Your task to perform on an android device: toggle javascript in the chrome app Image 0: 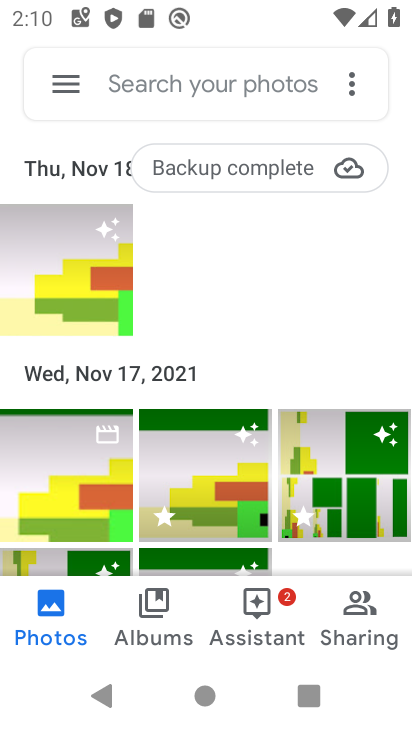
Step 0: press home button
Your task to perform on an android device: toggle javascript in the chrome app Image 1: 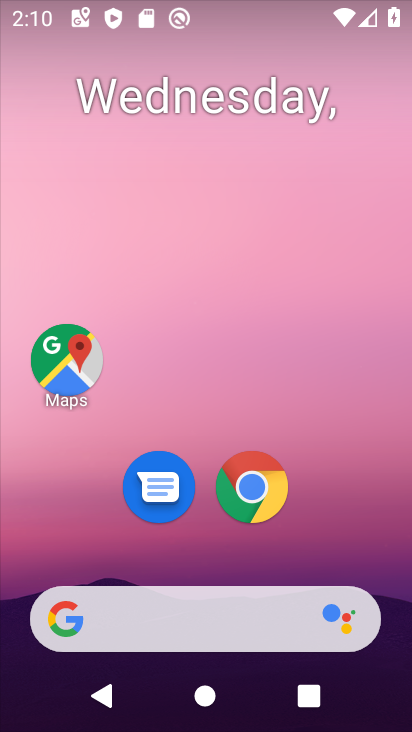
Step 1: click (251, 482)
Your task to perform on an android device: toggle javascript in the chrome app Image 2: 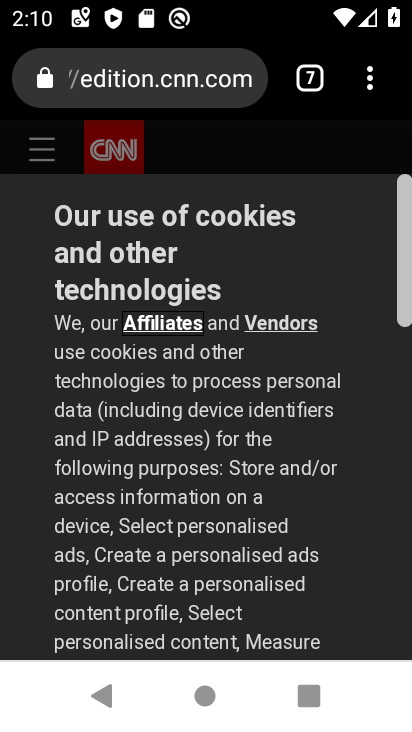
Step 2: click (367, 79)
Your task to perform on an android device: toggle javascript in the chrome app Image 3: 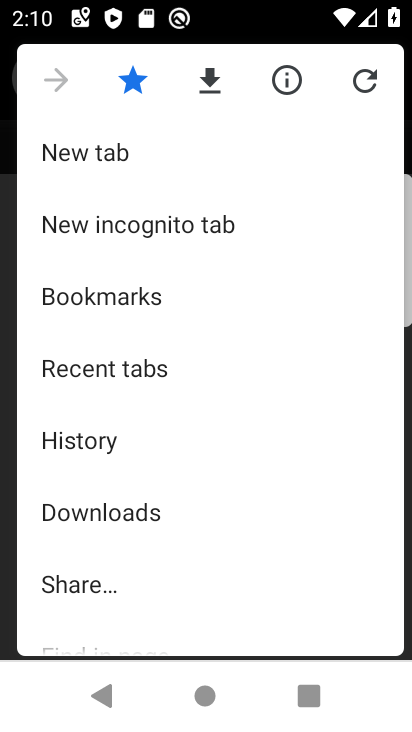
Step 3: drag from (257, 390) to (200, 72)
Your task to perform on an android device: toggle javascript in the chrome app Image 4: 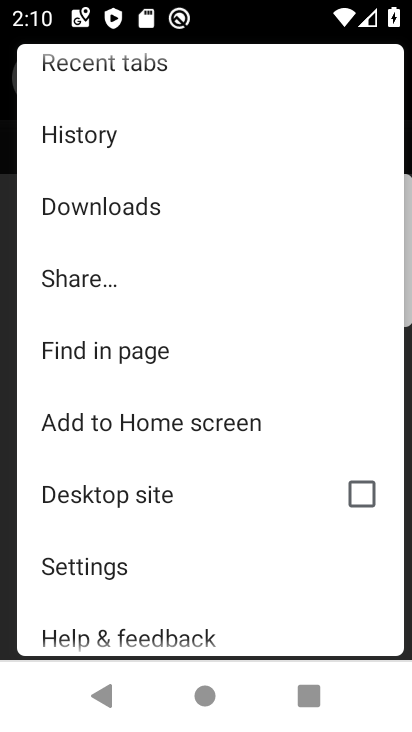
Step 4: click (79, 566)
Your task to perform on an android device: toggle javascript in the chrome app Image 5: 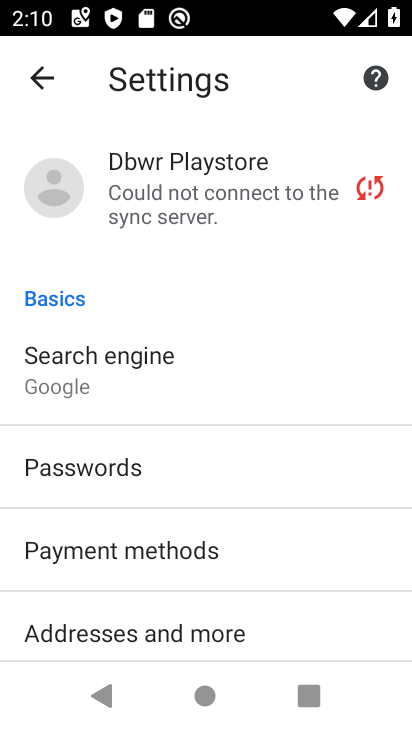
Step 5: drag from (262, 529) to (189, 68)
Your task to perform on an android device: toggle javascript in the chrome app Image 6: 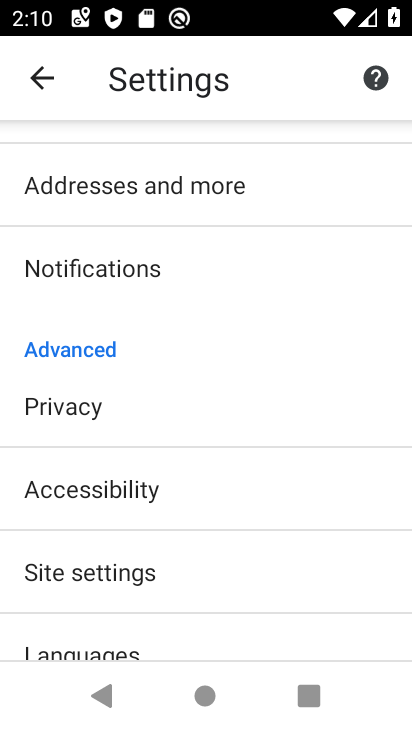
Step 6: drag from (243, 526) to (207, 294)
Your task to perform on an android device: toggle javascript in the chrome app Image 7: 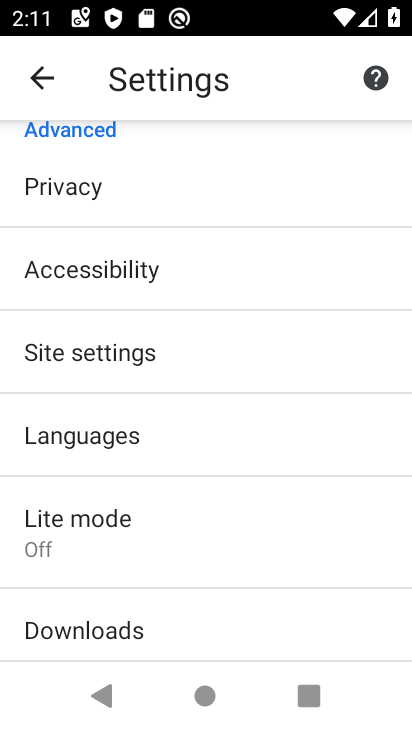
Step 7: click (107, 349)
Your task to perform on an android device: toggle javascript in the chrome app Image 8: 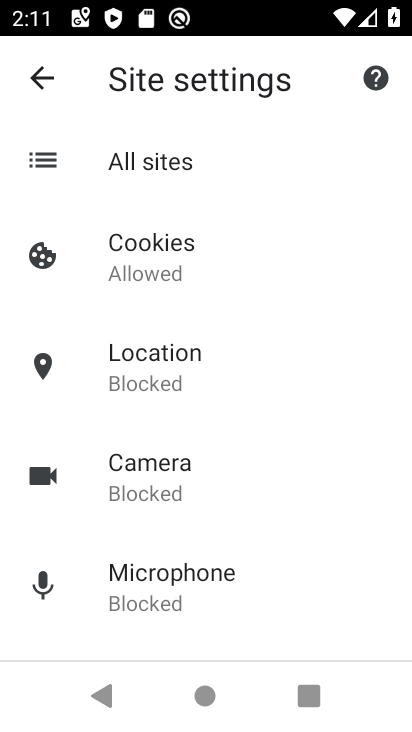
Step 8: drag from (290, 466) to (199, 116)
Your task to perform on an android device: toggle javascript in the chrome app Image 9: 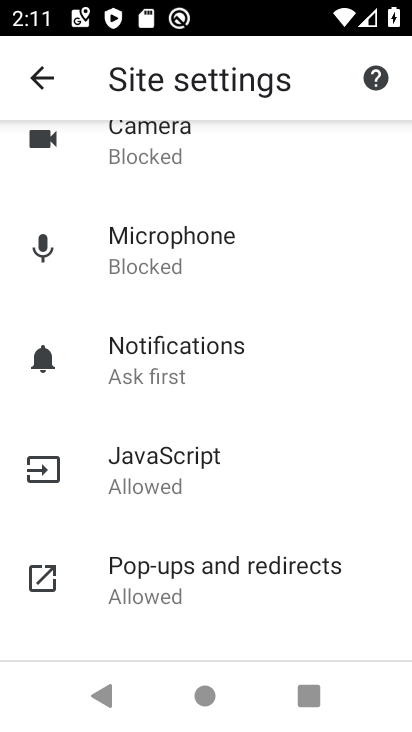
Step 9: click (165, 437)
Your task to perform on an android device: toggle javascript in the chrome app Image 10: 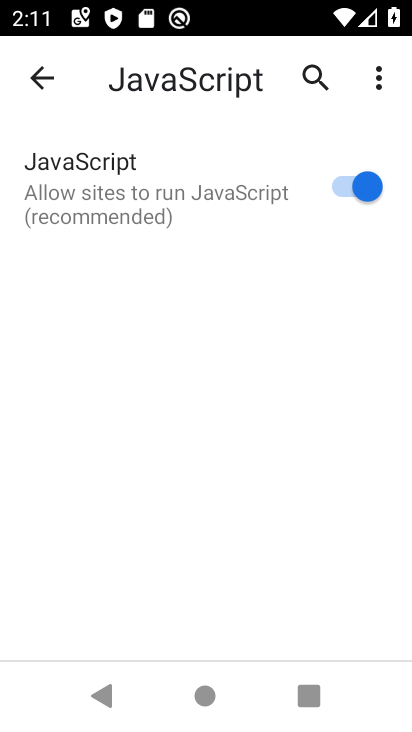
Step 10: click (363, 188)
Your task to perform on an android device: toggle javascript in the chrome app Image 11: 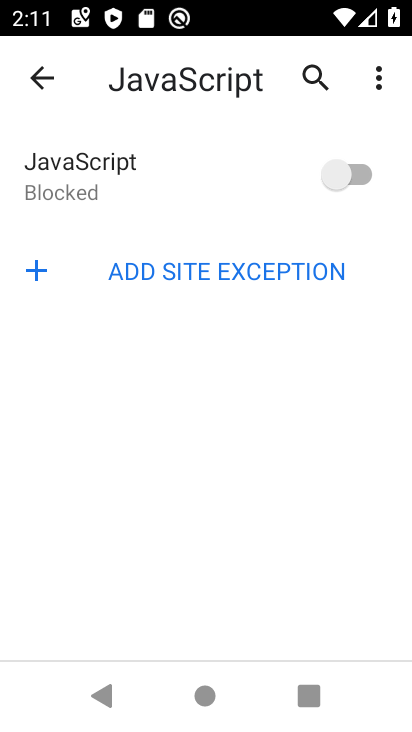
Step 11: task complete